Your task to perform on an android device: open app "YouTube Kids" (install if not already installed) Image 0: 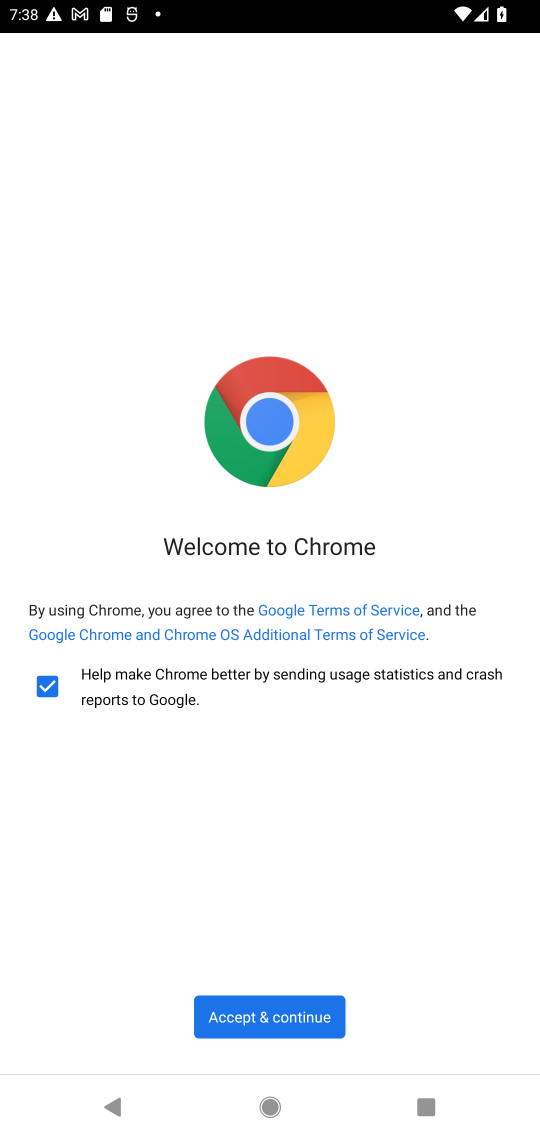
Step 0: press home button
Your task to perform on an android device: open app "YouTube Kids" (install if not already installed) Image 1: 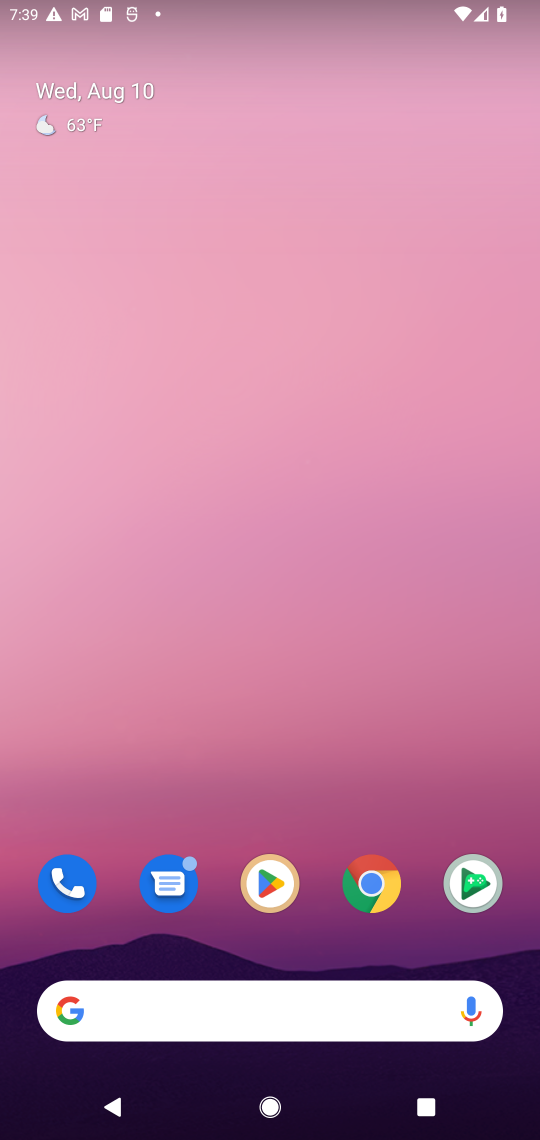
Step 1: click (291, 895)
Your task to perform on an android device: open app "YouTube Kids" (install if not already installed) Image 2: 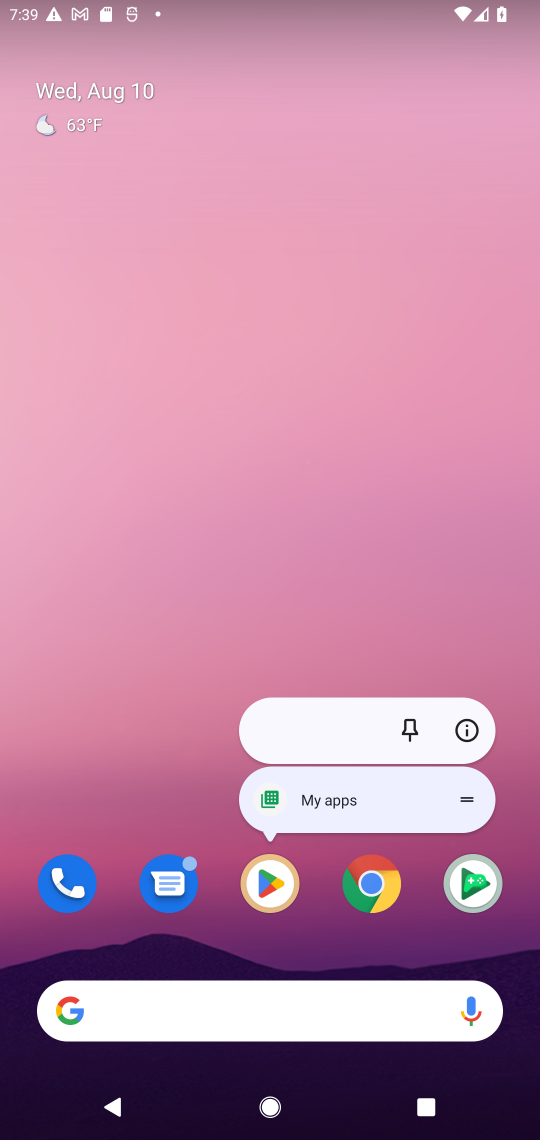
Step 2: click (264, 912)
Your task to perform on an android device: open app "YouTube Kids" (install if not already installed) Image 3: 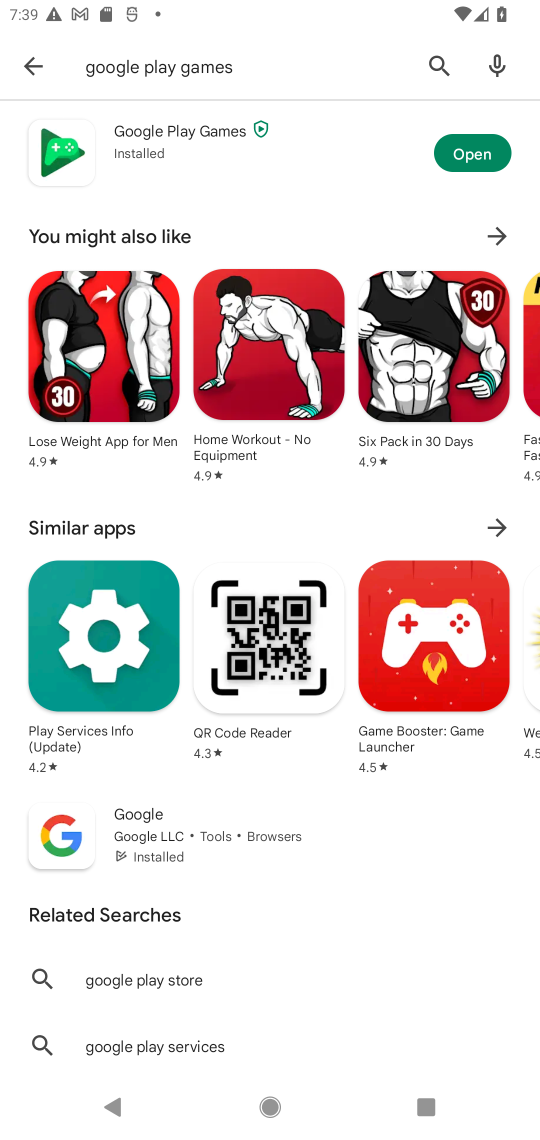
Step 3: click (440, 63)
Your task to perform on an android device: open app "YouTube Kids" (install if not already installed) Image 4: 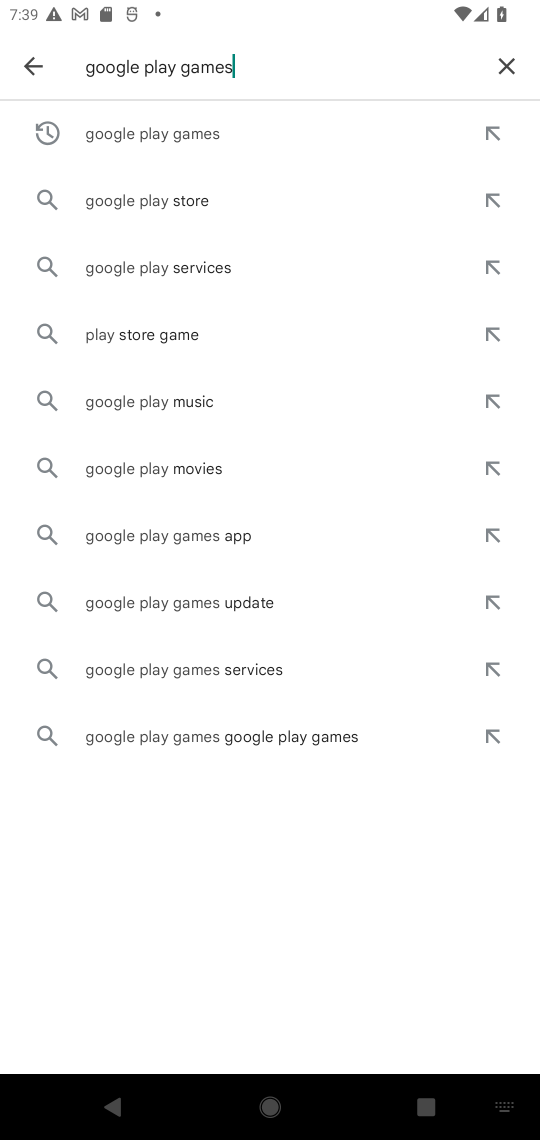
Step 4: click (496, 66)
Your task to perform on an android device: open app "YouTube Kids" (install if not already installed) Image 5: 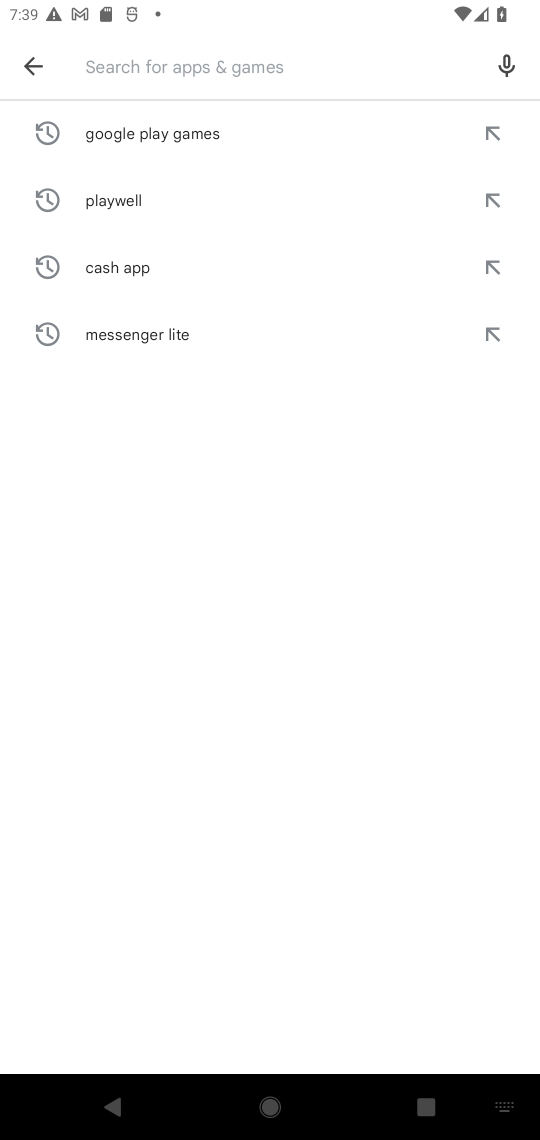
Step 5: type "YouTube Kids"
Your task to perform on an android device: open app "YouTube Kids" (install if not already installed) Image 6: 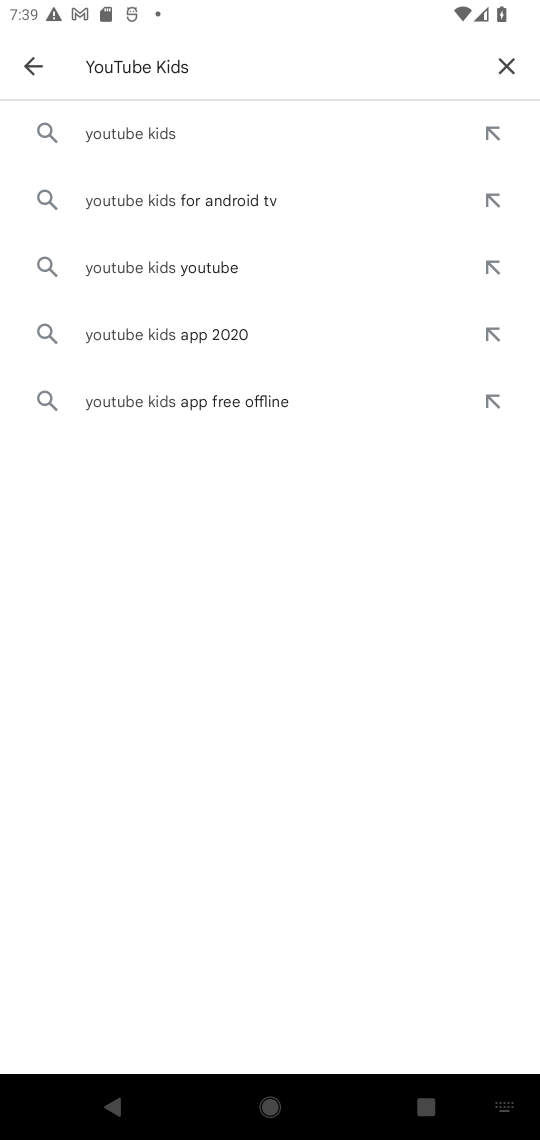
Step 6: click (184, 135)
Your task to perform on an android device: open app "YouTube Kids" (install if not already installed) Image 7: 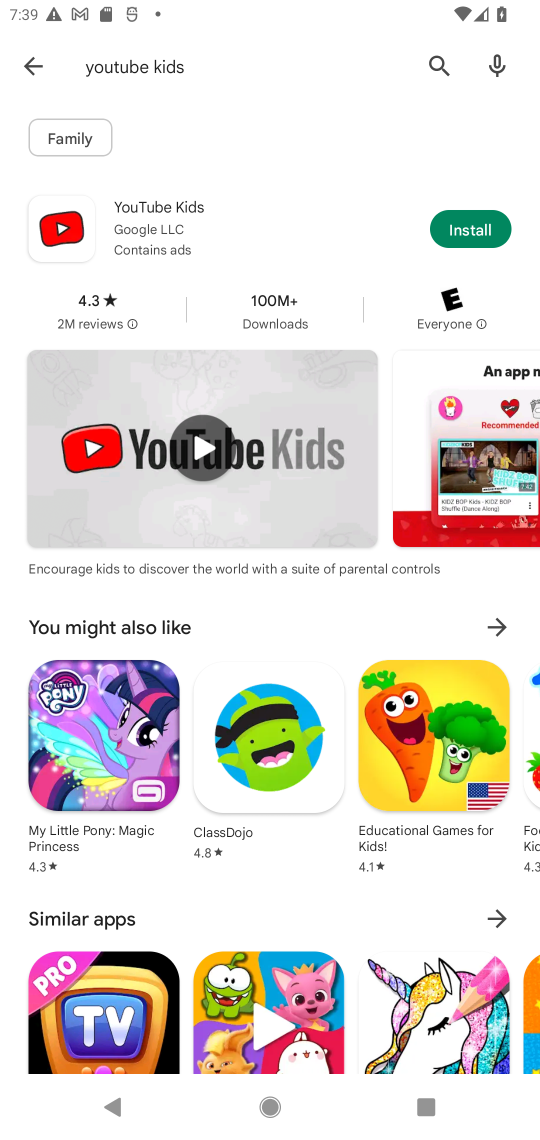
Step 7: click (474, 226)
Your task to perform on an android device: open app "YouTube Kids" (install if not already installed) Image 8: 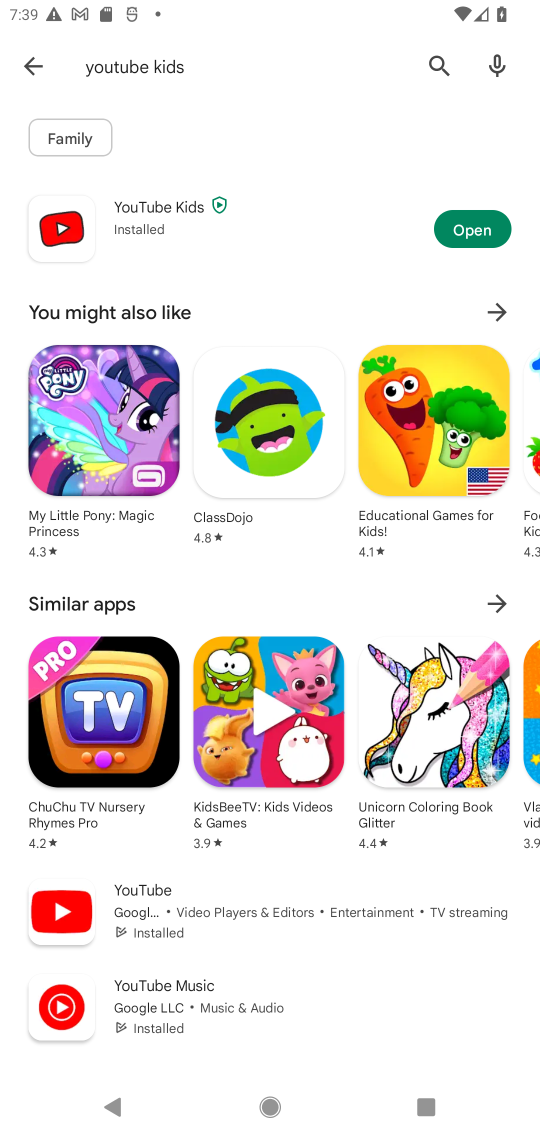
Step 8: click (456, 218)
Your task to perform on an android device: open app "YouTube Kids" (install if not already installed) Image 9: 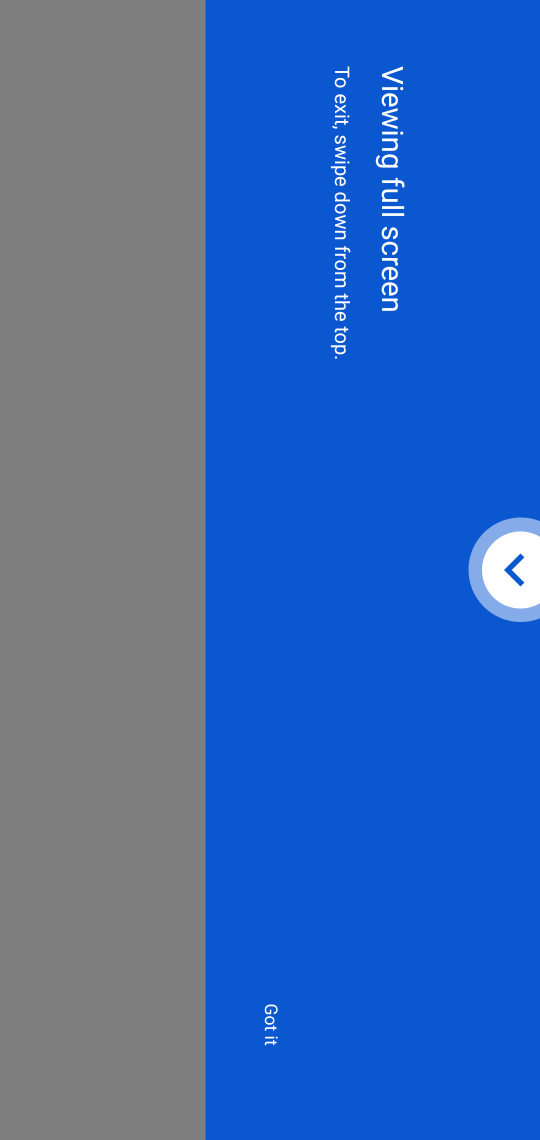
Step 9: task complete